Your task to perform on an android device: Add "dell alienware" to the cart on costco.com, then select checkout. Image 0: 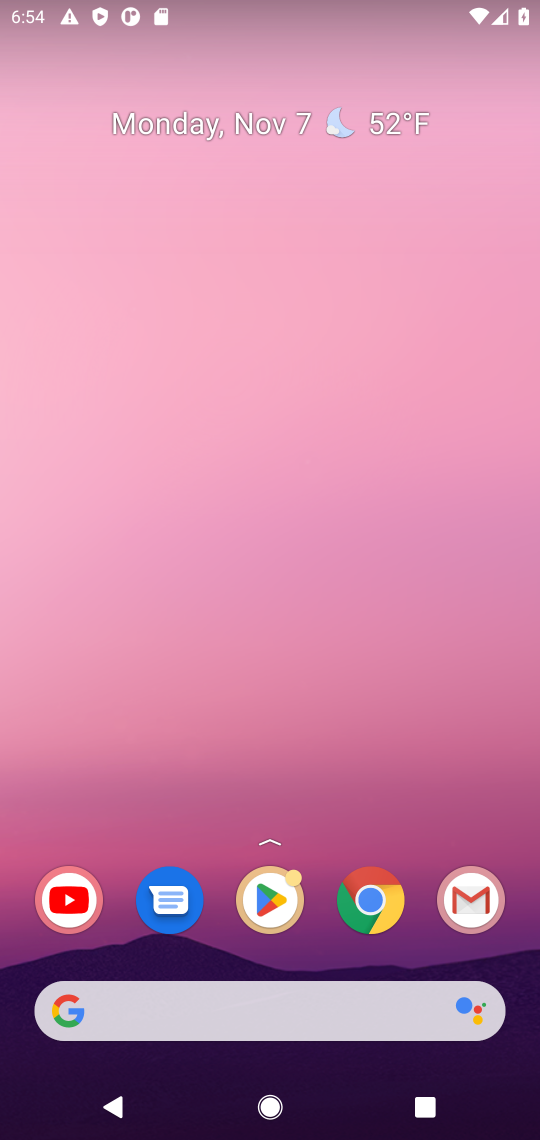
Step 0: click (371, 895)
Your task to perform on an android device: Add "dell alienware" to the cart on costco.com, then select checkout. Image 1: 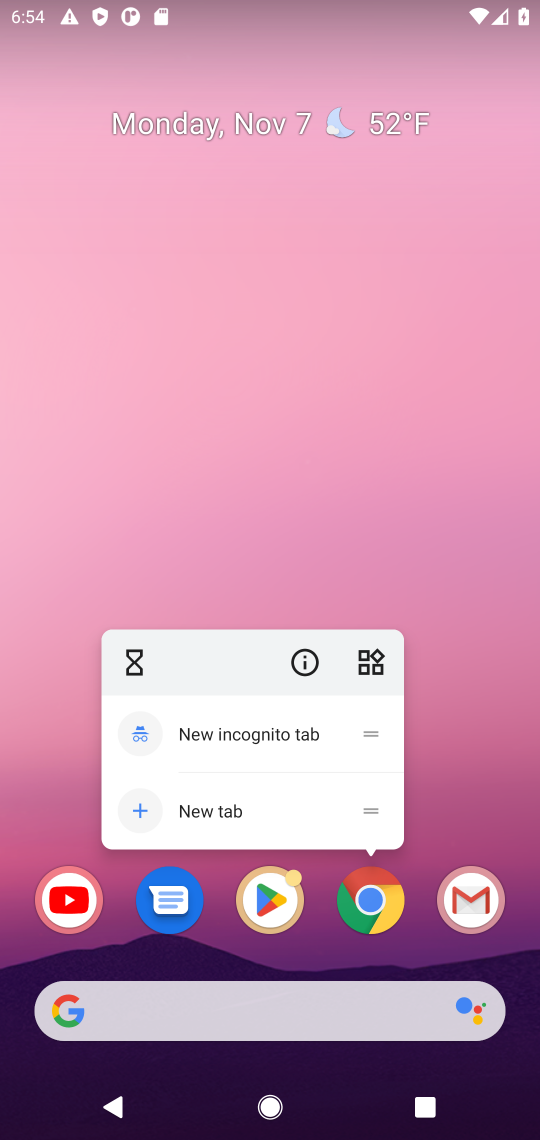
Step 1: click (371, 895)
Your task to perform on an android device: Add "dell alienware" to the cart on costco.com, then select checkout. Image 2: 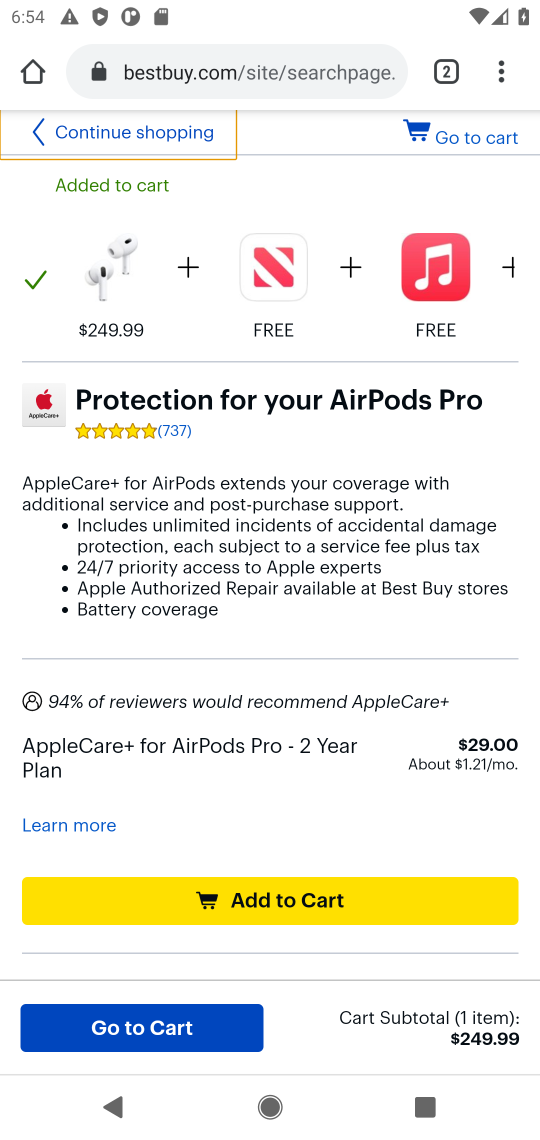
Step 2: click (444, 79)
Your task to perform on an android device: Add "dell alienware" to the cart on costco.com, then select checkout. Image 3: 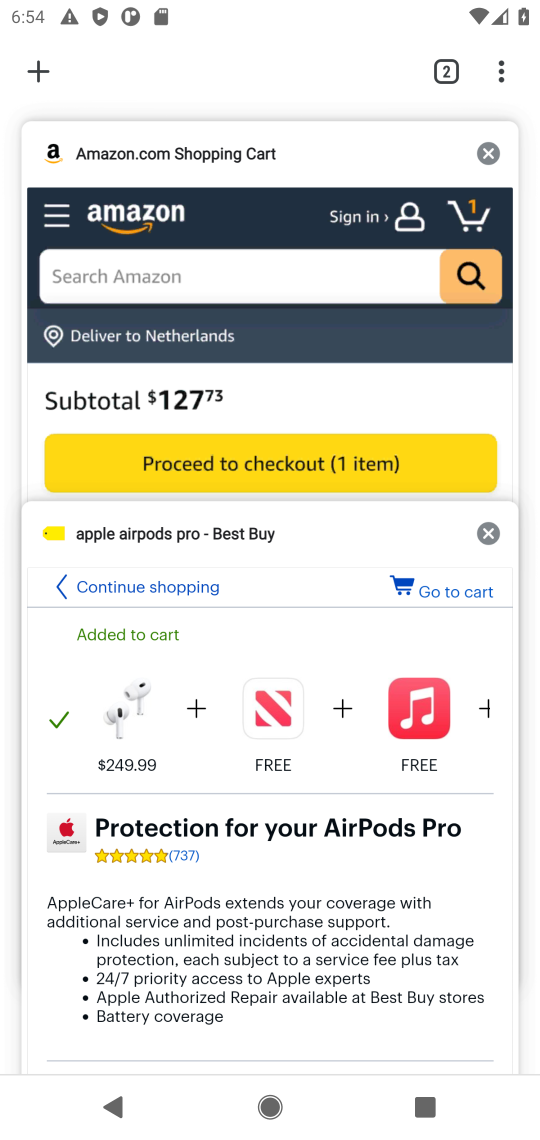
Step 3: click (37, 86)
Your task to perform on an android device: Add "dell alienware" to the cart on costco.com, then select checkout. Image 4: 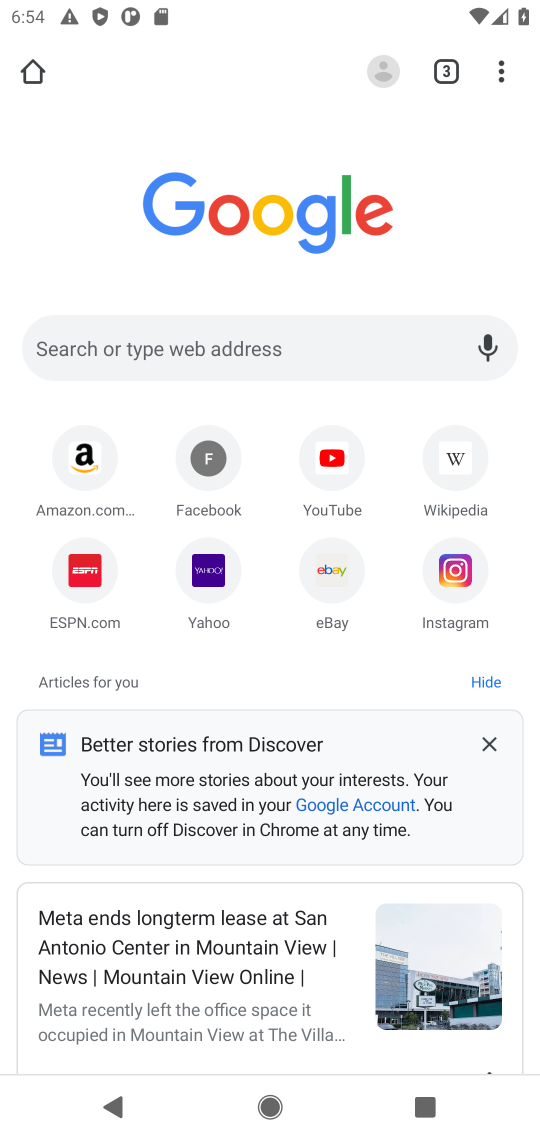
Step 4: click (164, 360)
Your task to perform on an android device: Add "dell alienware" to the cart on costco.com, then select checkout. Image 5: 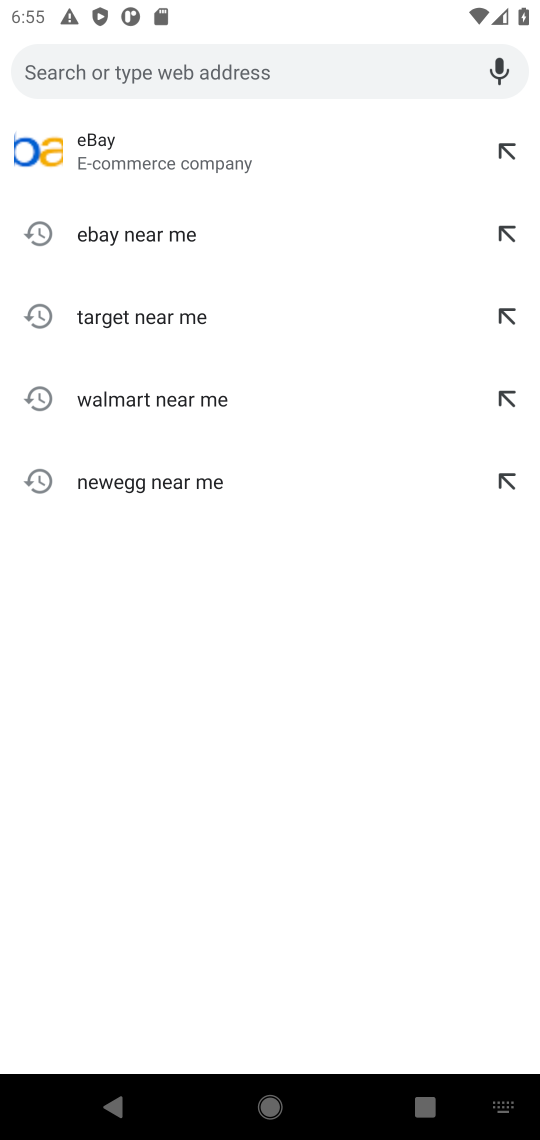
Step 5: type "costco"
Your task to perform on an android device: Add "dell alienware" to the cart on costco.com, then select checkout. Image 6: 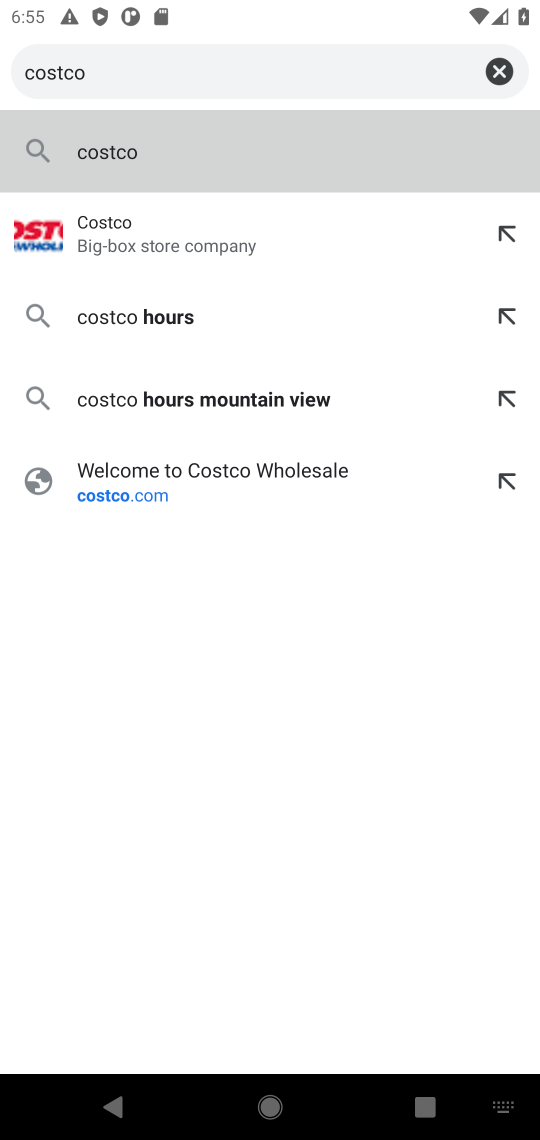
Step 6: click (263, 260)
Your task to perform on an android device: Add "dell alienware" to the cart on costco.com, then select checkout. Image 7: 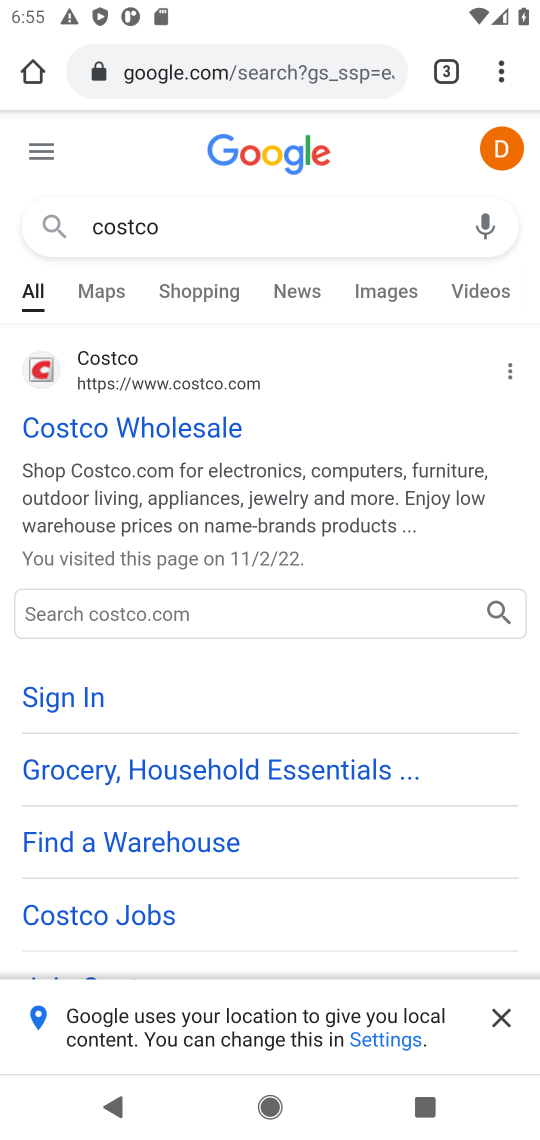
Step 7: click (189, 421)
Your task to perform on an android device: Add "dell alienware" to the cart on costco.com, then select checkout. Image 8: 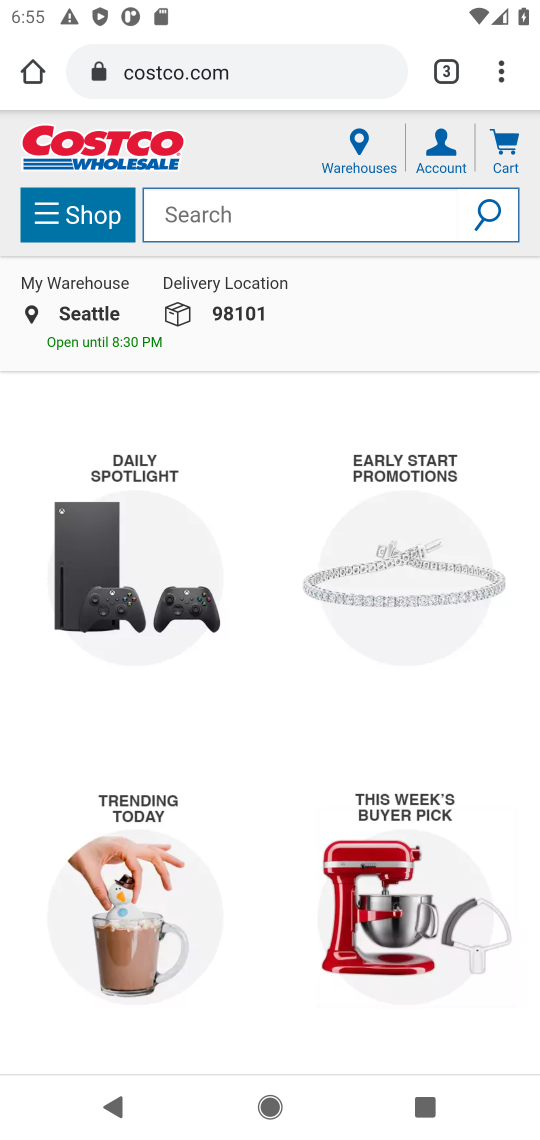
Step 8: click (219, 205)
Your task to perform on an android device: Add "dell alienware" to the cart on costco.com, then select checkout. Image 9: 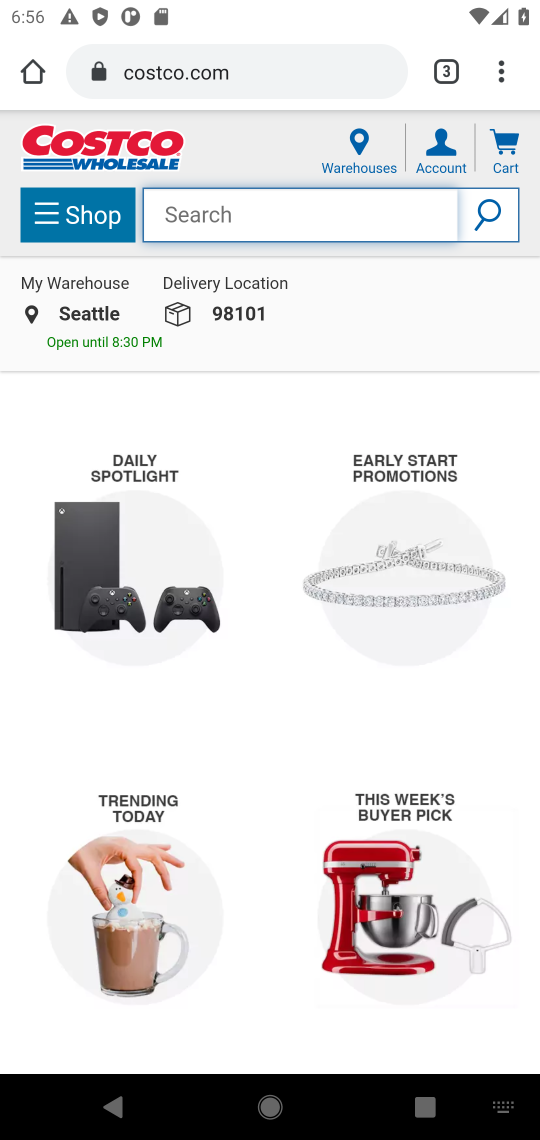
Step 9: type "dell alienware"
Your task to perform on an android device: Add "dell alienware" to the cart on costco.com, then select checkout. Image 10: 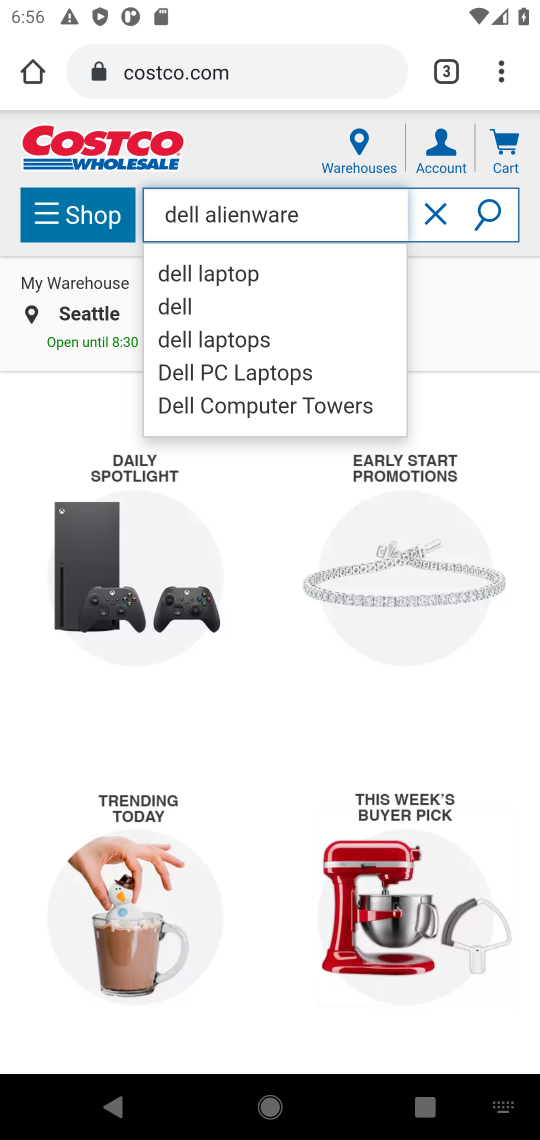
Step 10: click (470, 221)
Your task to perform on an android device: Add "dell alienware" to the cart on costco.com, then select checkout. Image 11: 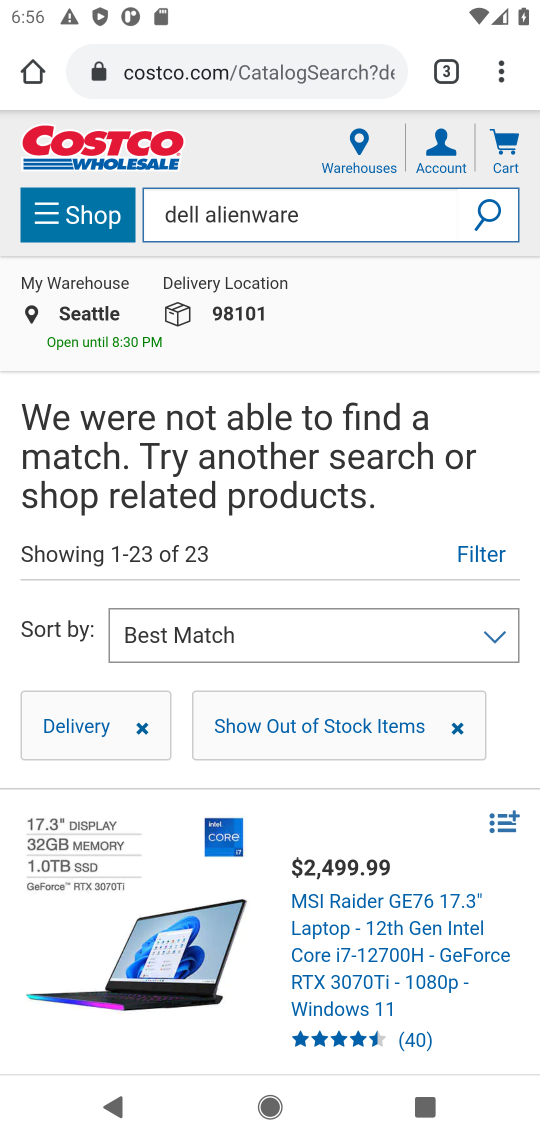
Step 11: task complete